Your task to perform on an android device: show emergency info Image 0: 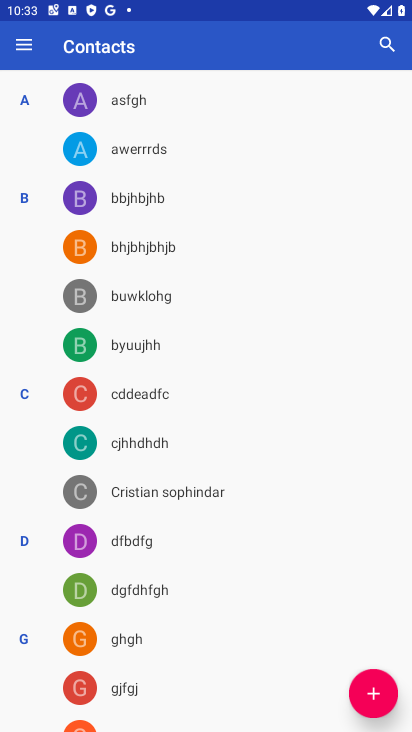
Step 0: press home button
Your task to perform on an android device: show emergency info Image 1: 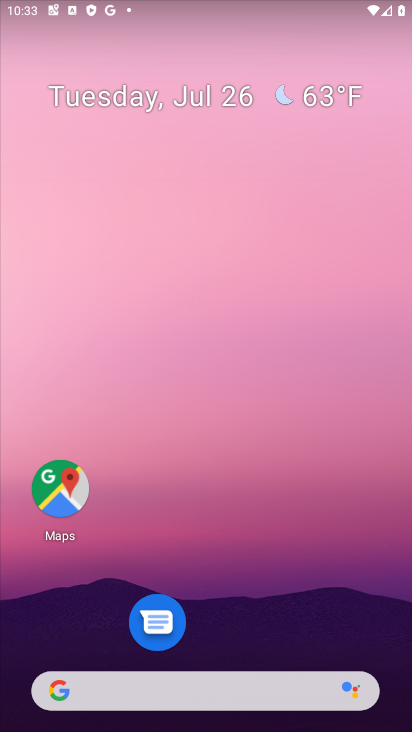
Step 1: drag from (356, 557) to (386, 240)
Your task to perform on an android device: show emergency info Image 2: 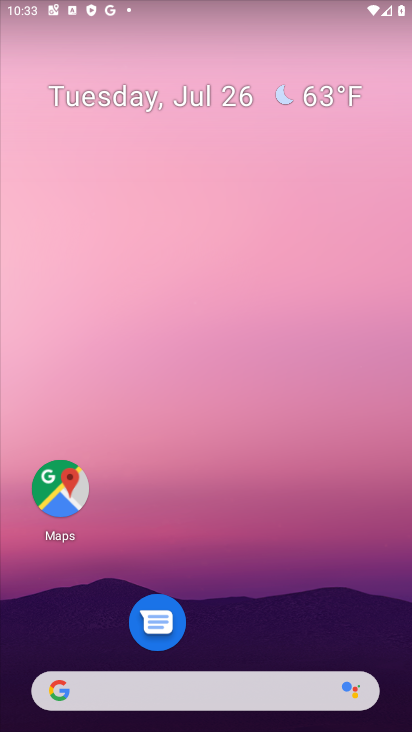
Step 2: drag from (321, 637) to (375, 139)
Your task to perform on an android device: show emergency info Image 3: 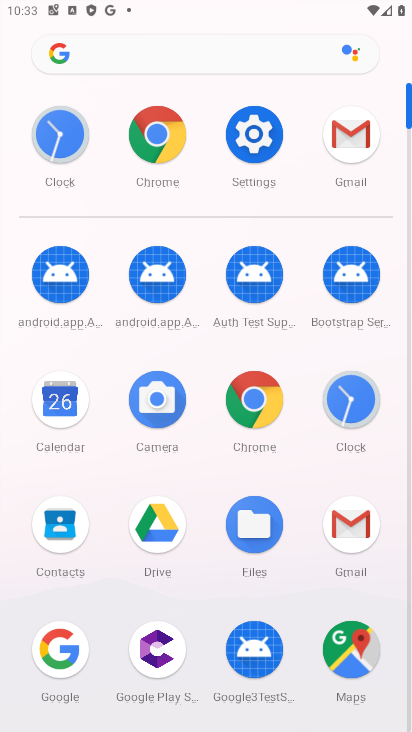
Step 3: click (256, 117)
Your task to perform on an android device: show emergency info Image 4: 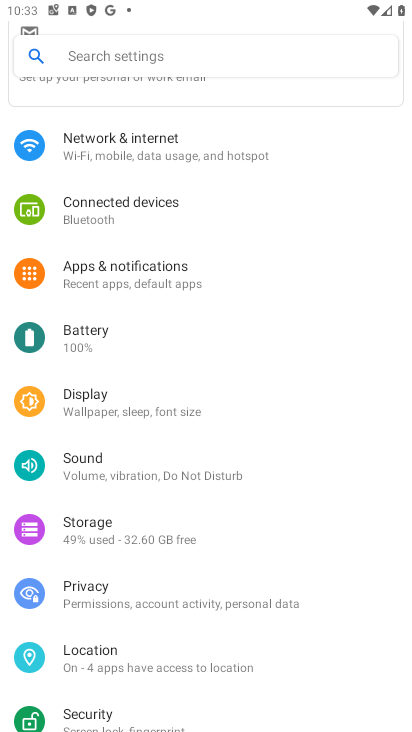
Step 4: drag from (165, 611) to (204, 107)
Your task to perform on an android device: show emergency info Image 5: 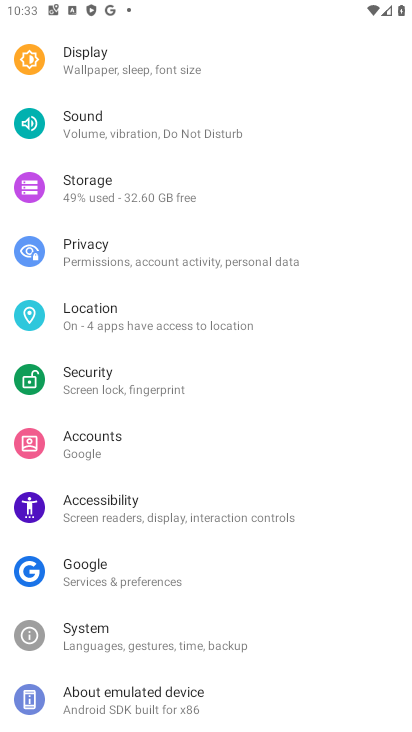
Step 5: click (116, 707)
Your task to perform on an android device: show emergency info Image 6: 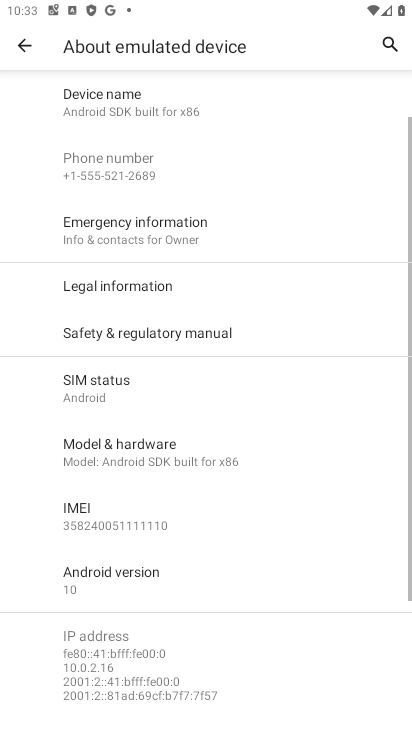
Step 6: click (162, 233)
Your task to perform on an android device: show emergency info Image 7: 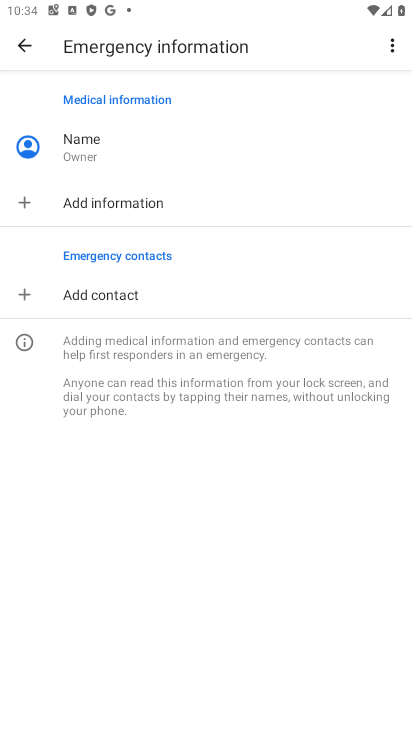
Step 7: task complete